Your task to perform on an android device: turn off data saver in the chrome app Image 0: 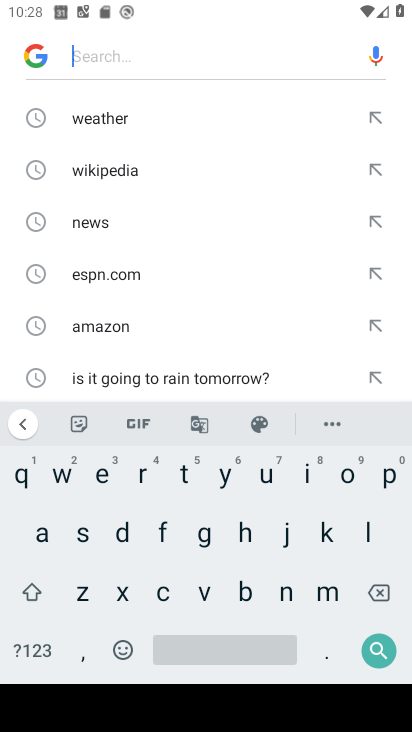
Step 0: press home button
Your task to perform on an android device: turn off data saver in the chrome app Image 1: 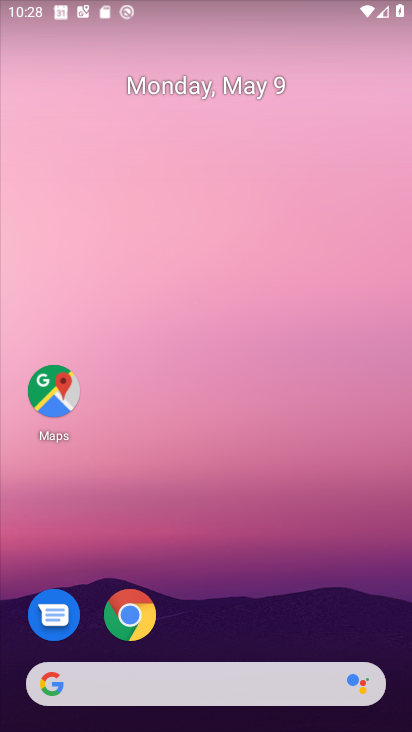
Step 1: drag from (227, 702) to (329, 217)
Your task to perform on an android device: turn off data saver in the chrome app Image 2: 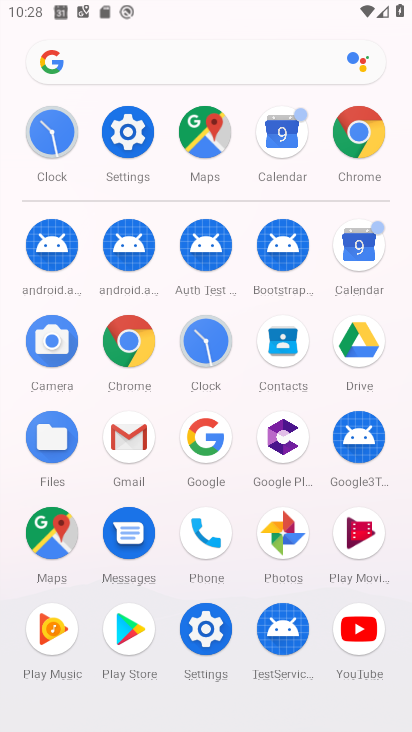
Step 2: click (377, 122)
Your task to perform on an android device: turn off data saver in the chrome app Image 3: 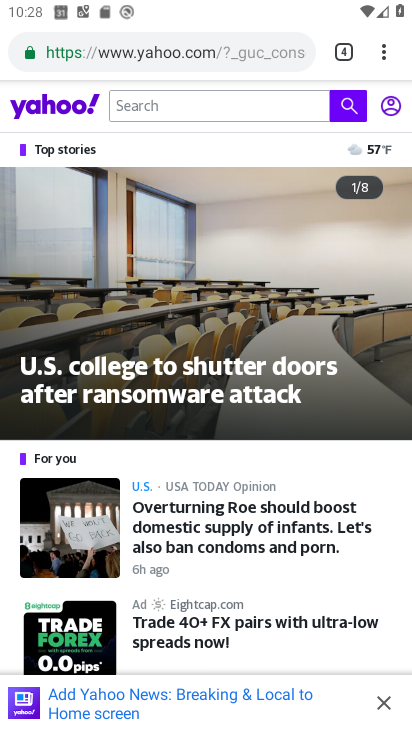
Step 3: click (382, 65)
Your task to perform on an android device: turn off data saver in the chrome app Image 4: 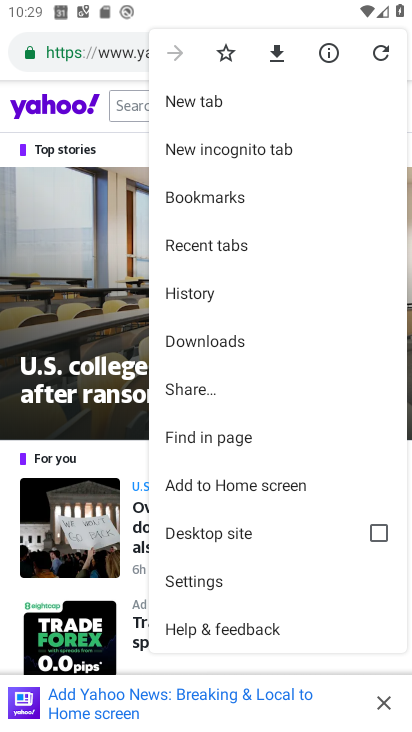
Step 4: click (223, 588)
Your task to perform on an android device: turn off data saver in the chrome app Image 5: 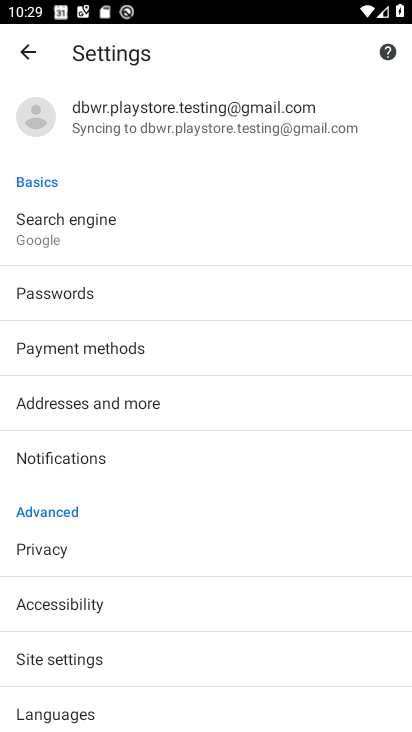
Step 5: drag from (95, 703) to (125, 560)
Your task to perform on an android device: turn off data saver in the chrome app Image 6: 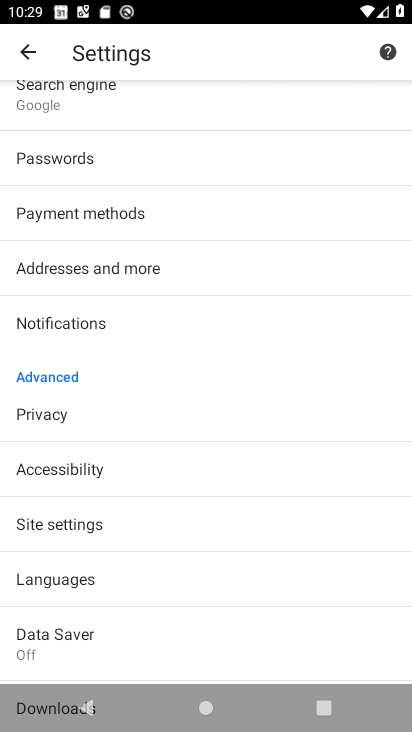
Step 6: click (68, 638)
Your task to perform on an android device: turn off data saver in the chrome app Image 7: 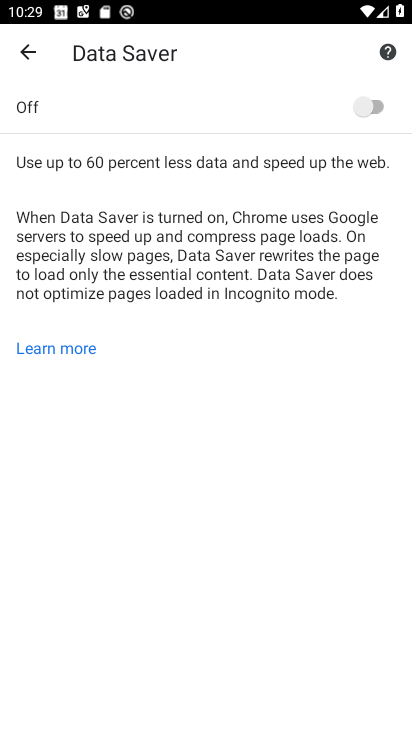
Step 7: click (373, 97)
Your task to perform on an android device: turn off data saver in the chrome app Image 8: 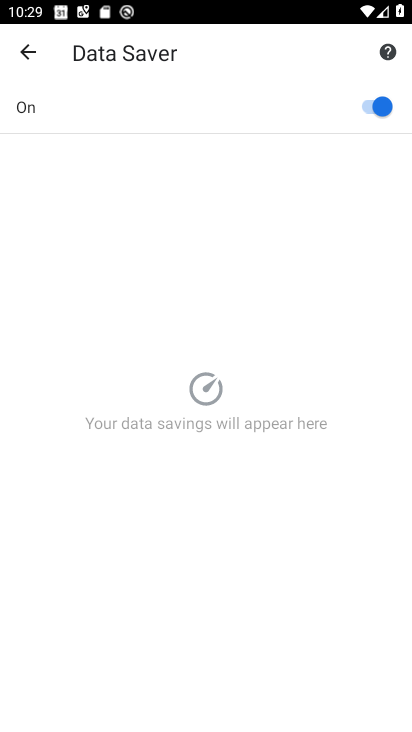
Step 8: click (371, 95)
Your task to perform on an android device: turn off data saver in the chrome app Image 9: 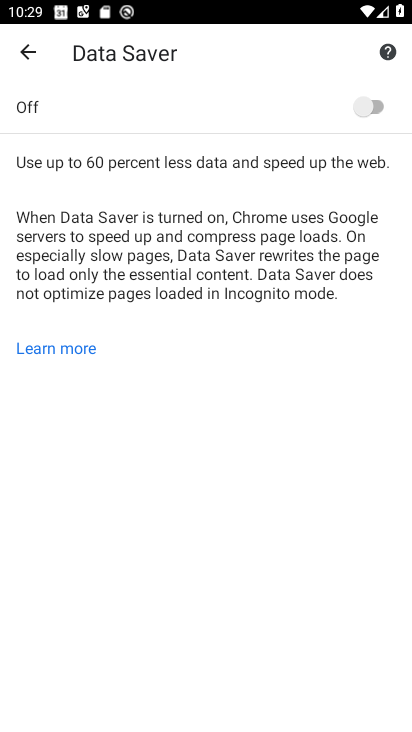
Step 9: task complete